Your task to perform on an android device: Go to Wikipedia Image 0: 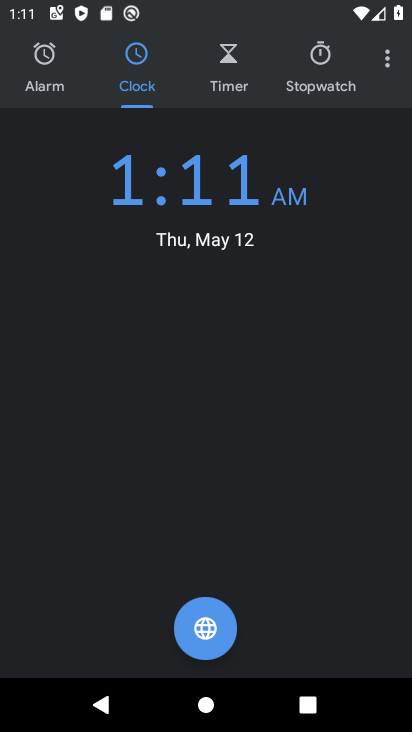
Step 0: press home button
Your task to perform on an android device: Go to Wikipedia Image 1: 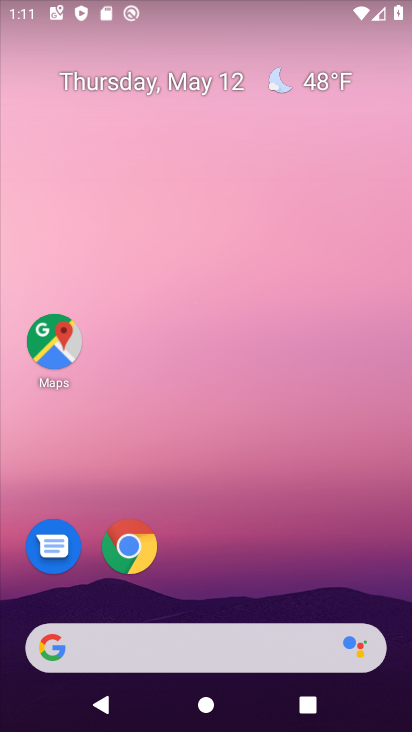
Step 1: click (363, 36)
Your task to perform on an android device: Go to Wikipedia Image 2: 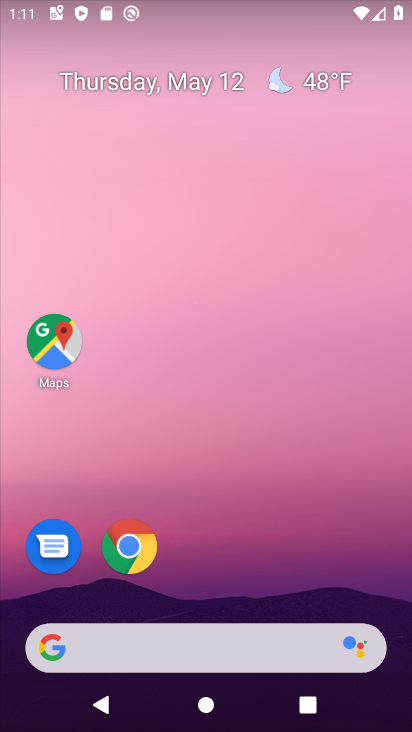
Step 2: drag from (182, 644) to (339, 214)
Your task to perform on an android device: Go to Wikipedia Image 3: 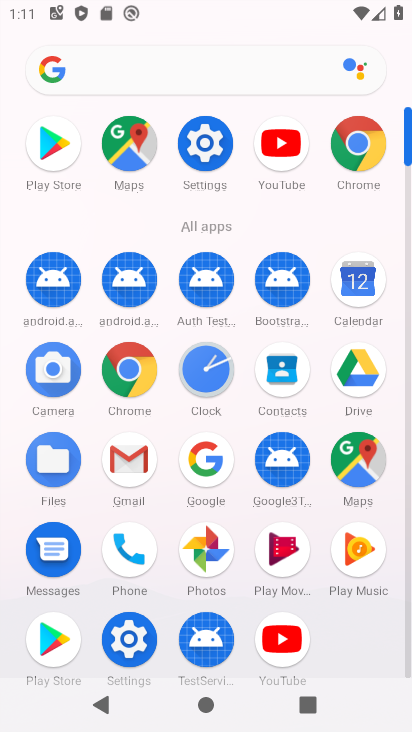
Step 3: click (353, 151)
Your task to perform on an android device: Go to Wikipedia Image 4: 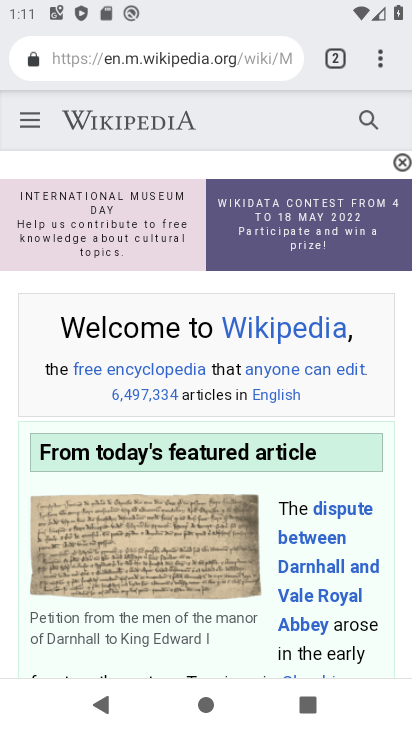
Step 4: task complete